Your task to perform on an android device: turn on showing notifications on the lock screen Image 0: 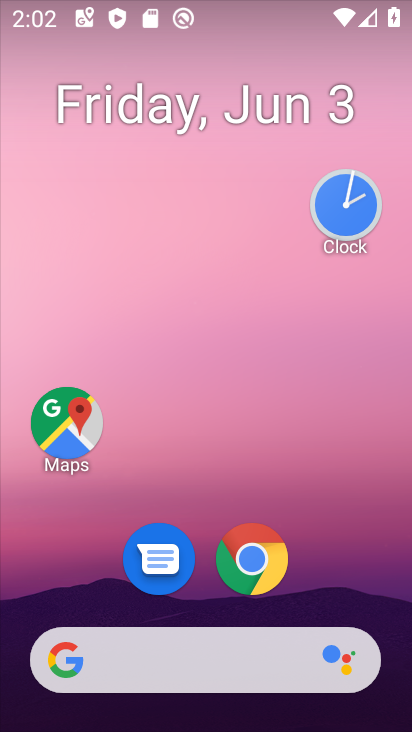
Step 0: drag from (375, 560) to (276, 192)
Your task to perform on an android device: turn on showing notifications on the lock screen Image 1: 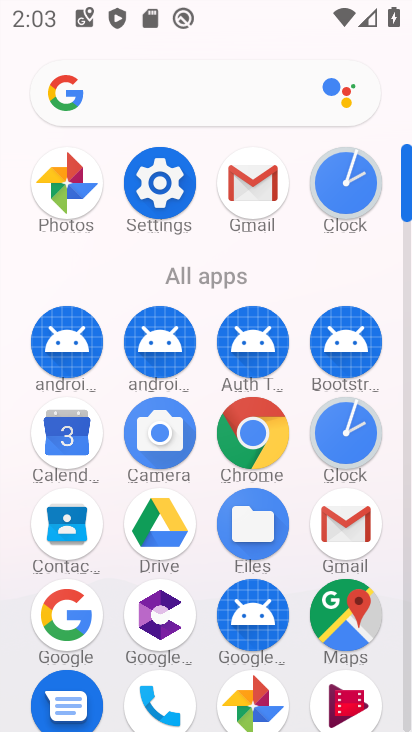
Step 1: click (175, 204)
Your task to perform on an android device: turn on showing notifications on the lock screen Image 2: 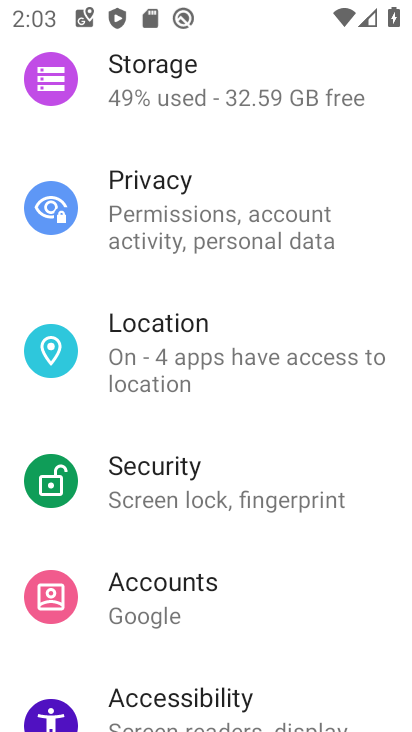
Step 2: drag from (317, 175) to (259, 730)
Your task to perform on an android device: turn on showing notifications on the lock screen Image 3: 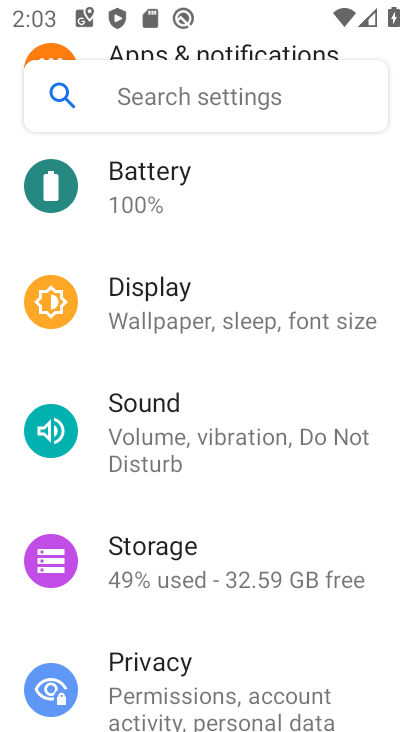
Step 3: click (194, 44)
Your task to perform on an android device: turn on showing notifications on the lock screen Image 4: 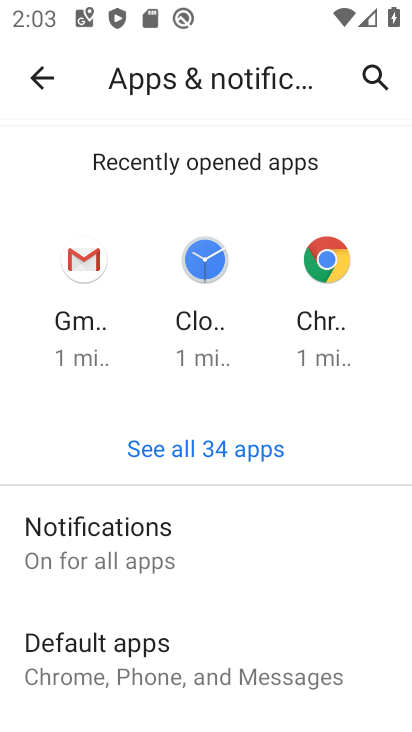
Step 4: click (229, 530)
Your task to perform on an android device: turn on showing notifications on the lock screen Image 5: 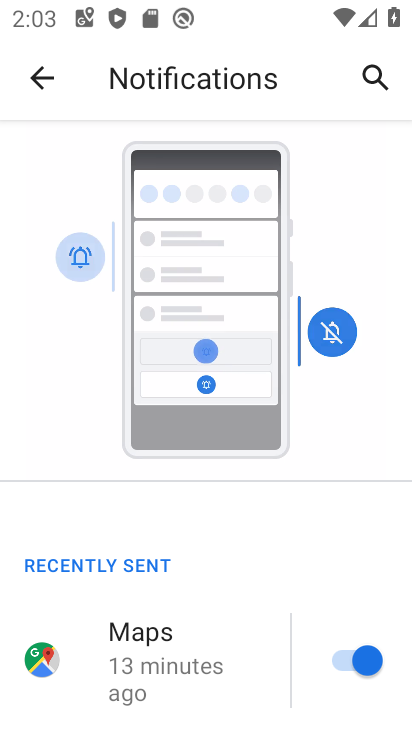
Step 5: drag from (264, 634) to (238, 323)
Your task to perform on an android device: turn on showing notifications on the lock screen Image 6: 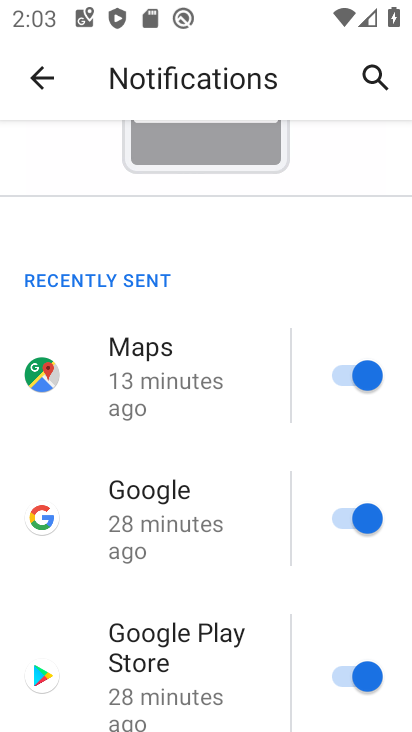
Step 6: drag from (248, 596) to (235, 74)
Your task to perform on an android device: turn on showing notifications on the lock screen Image 7: 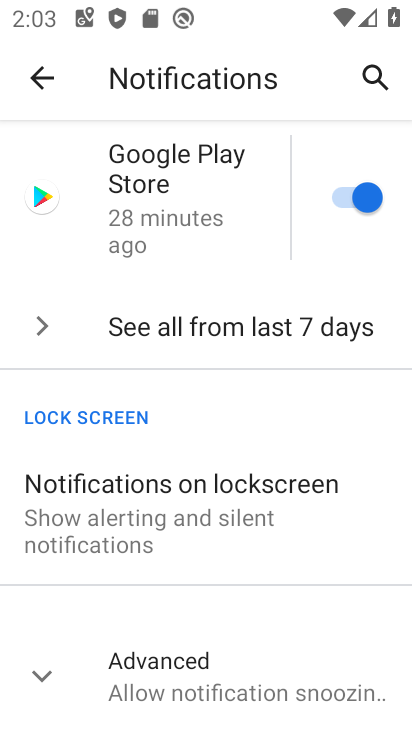
Step 7: click (239, 500)
Your task to perform on an android device: turn on showing notifications on the lock screen Image 8: 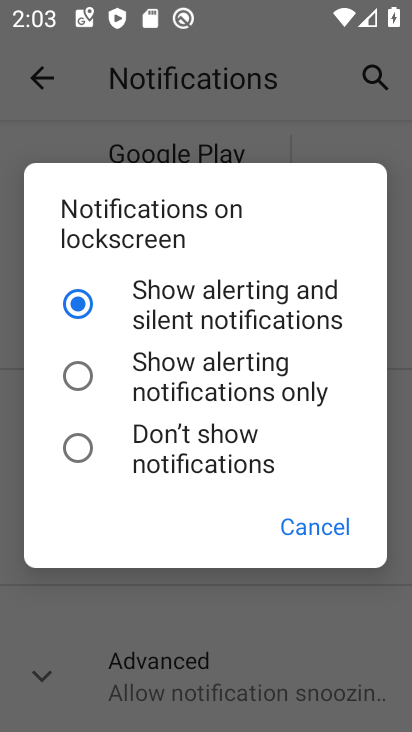
Step 8: task complete